Your task to perform on an android device: Is it going to rain today? Image 0: 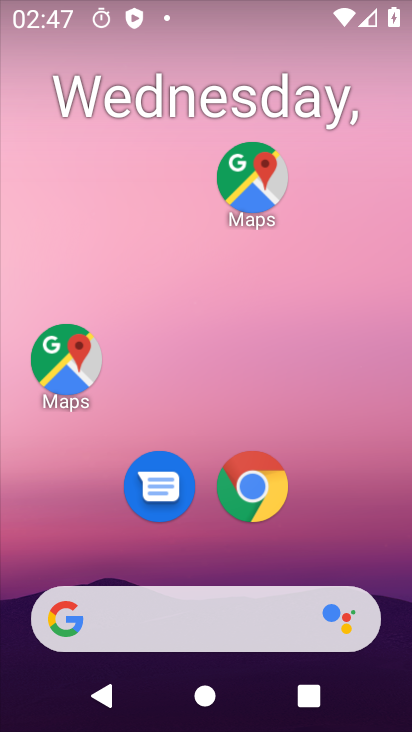
Step 0: drag from (187, 571) to (191, 9)
Your task to perform on an android device: Is it going to rain today? Image 1: 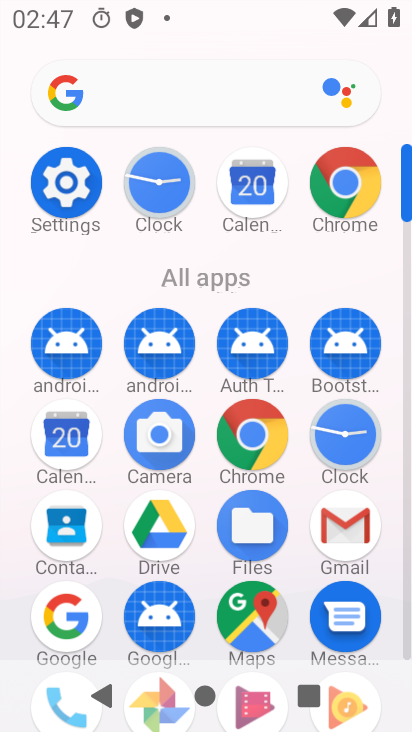
Step 1: click (71, 624)
Your task to perform on an android device: Is it going to rain today? Image 2: 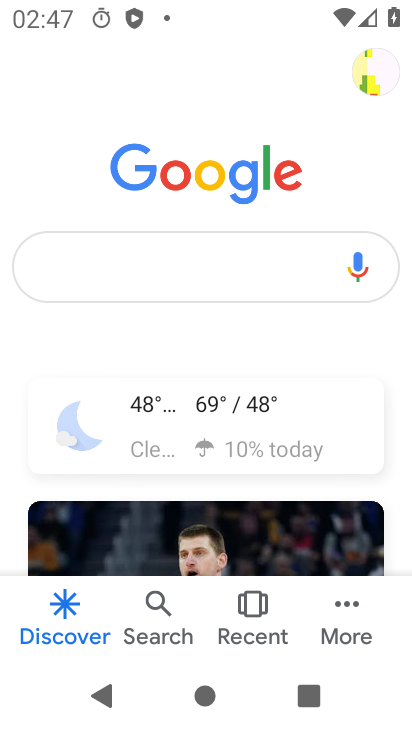
Step 2: click (172, 410)
Your task to perform on an android device: Is it going to rain today? Image 3: 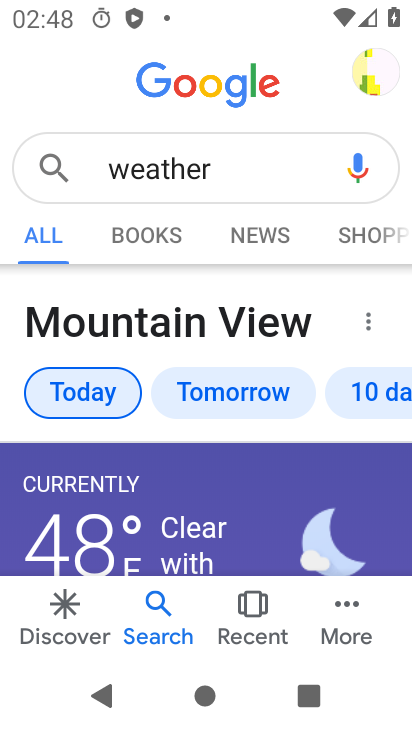
Step 3: task complete